Your task to perform on an android device: turn off notifications settings in the gmail app Image 0: 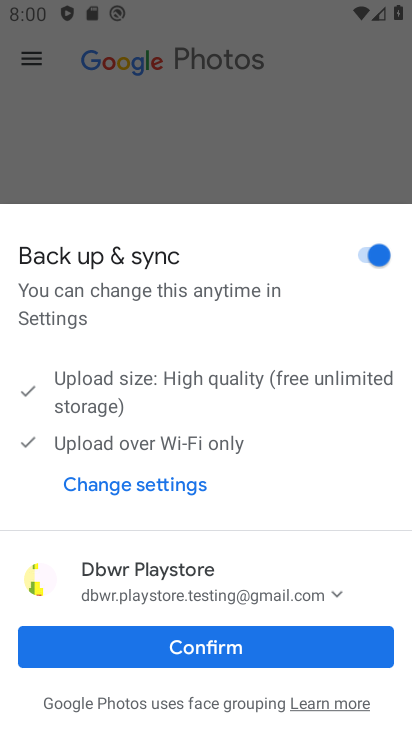
Step 0: press home button
Your task to perform on an android device: turn off notifications settings in the gmail app Image 1: 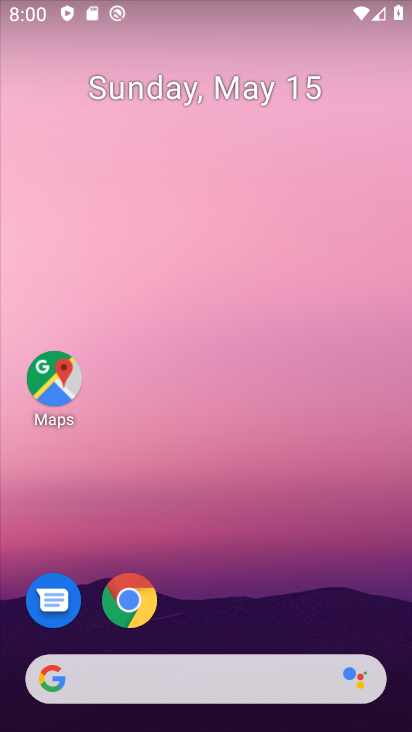
Step 1: drag from (209, 584) to (72, 142)
Your task to perform on an android device: turn off notifications settings in the gmail app Image 2: 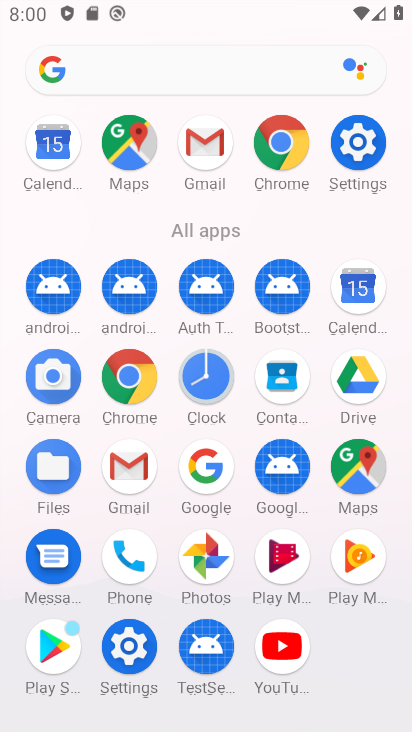
Step 2: click (212, 152)
Your task to perform on an android device: turn off notifications settings in the gmail app Image 3: 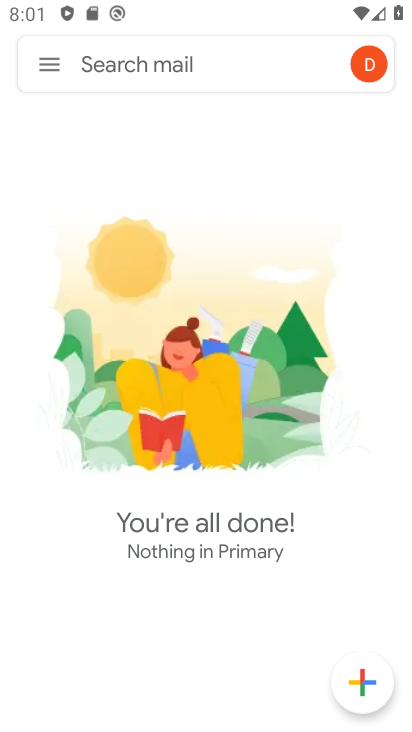
Step 3: click (42, 68)
Your task to perform on an android device: turn off notifications settings in the gmail app Image 4: 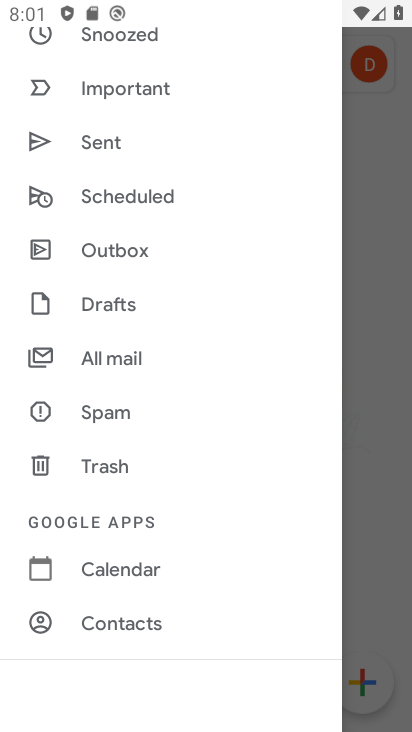
Step 4: drag from (117, 671) to (86, 404)
Your task to perform on an android device: turn off notifications settings in the gmail app Image 5: 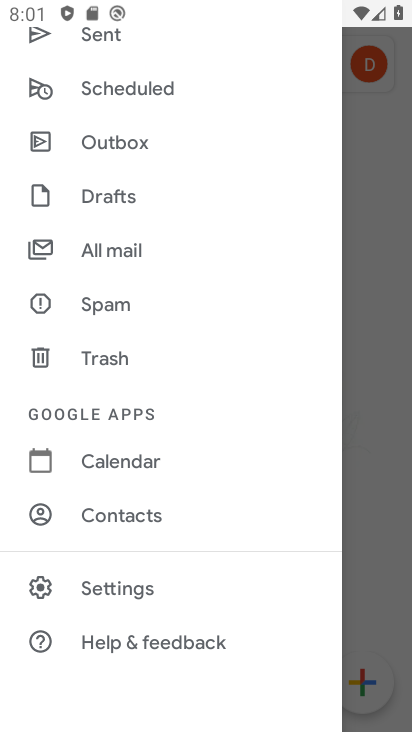
Step 5: click (130, 587)
Your task to perform on an android device: turn off notifications settings in the gmail app Image 6: 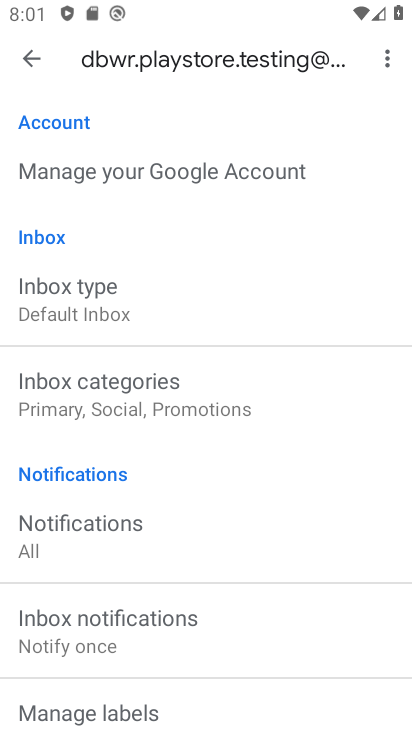
Step 6: drag from (150, 647) to (135, 419)
Your task to perform on an android device: turn off notifications settings in the gmail app Image 7: 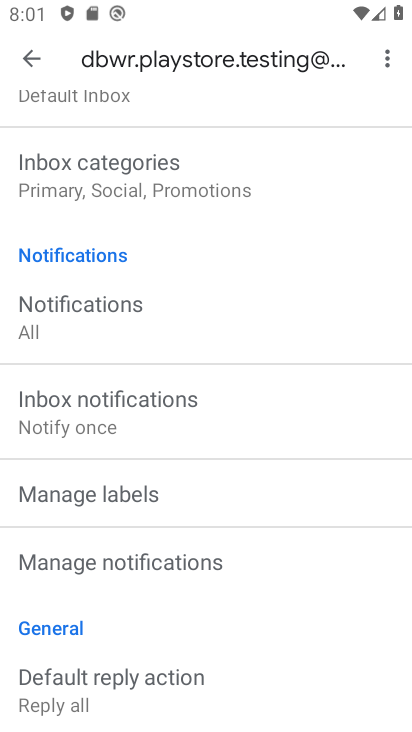
Step 7: click (131, 557)
Your task to perform on an android device: turn off notifications settings in the gmail app Image 8: 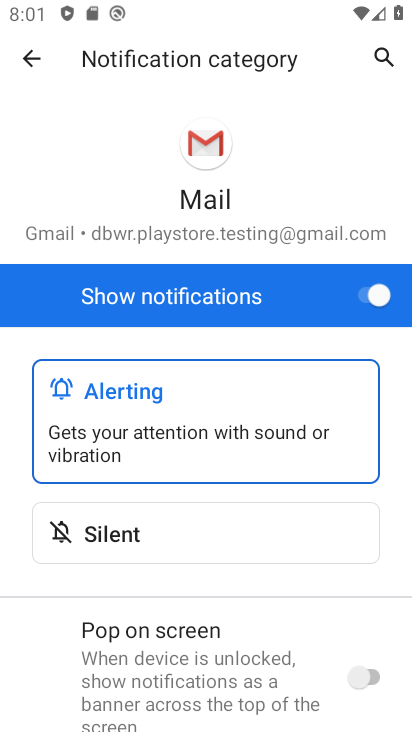
Step 8: click (388, 297)
Your task to perform on an android device: turn off notifications settings in the gmail app Image 9: 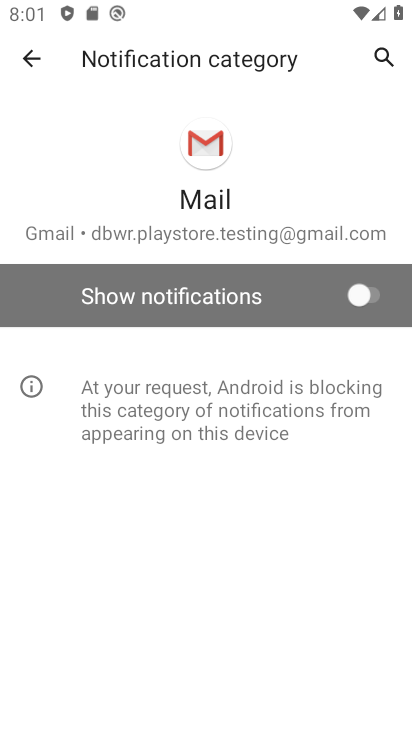
Step 9: task complete